Your task to perform on an android device: toggle show notifications on the lock screen Image 0: 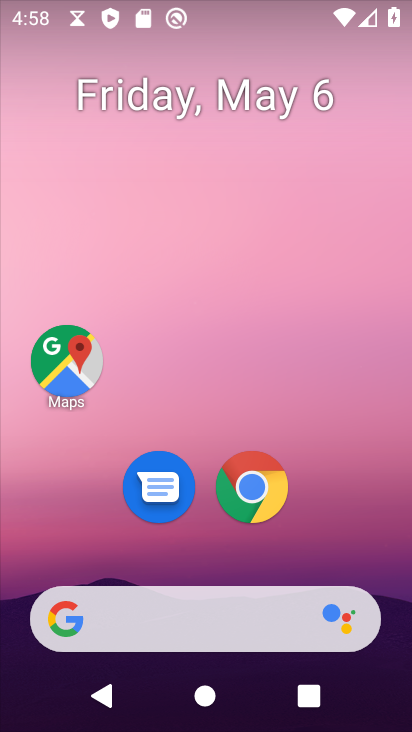
Step 0: drag from (187, 421) to (369, 7)
Your task to perform on an android device: toggle show notifications on the lock screen Image 1: 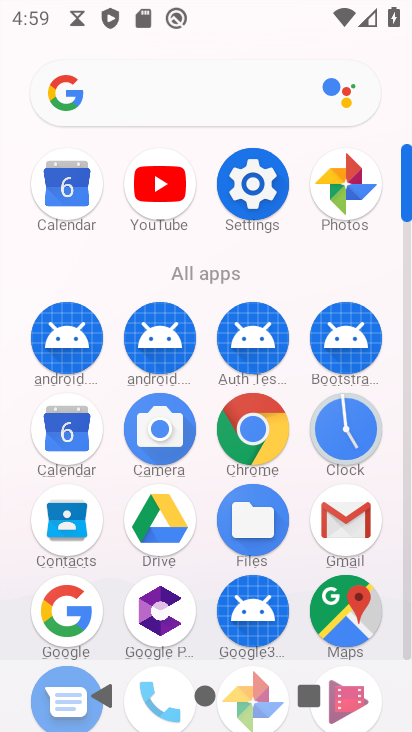
Step 1: click (252, 181)
Your task to perform on an android device: toggle show notifications on the lock screen Image 2: 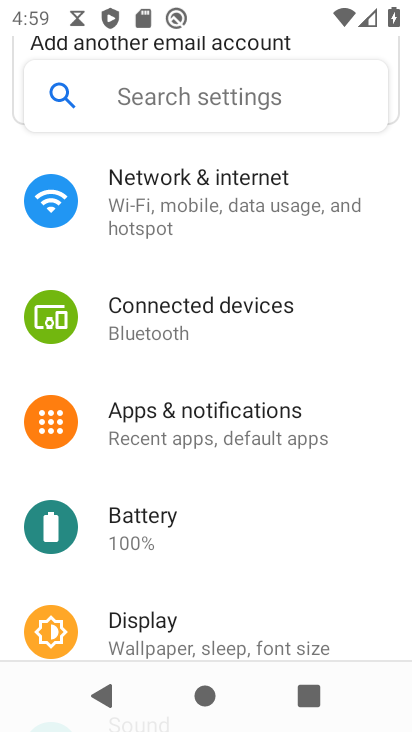
Step 2: click (227, 402)
Your task to perform on an android device: toggle show notifications on the lock screen Image 3: 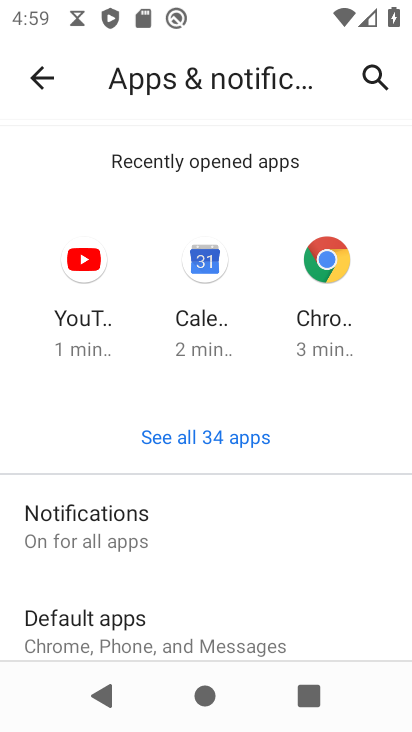
Step 3: click (101, 512)
Your task to perform on an android device: toggle show notifications on the lock screen Image 4: 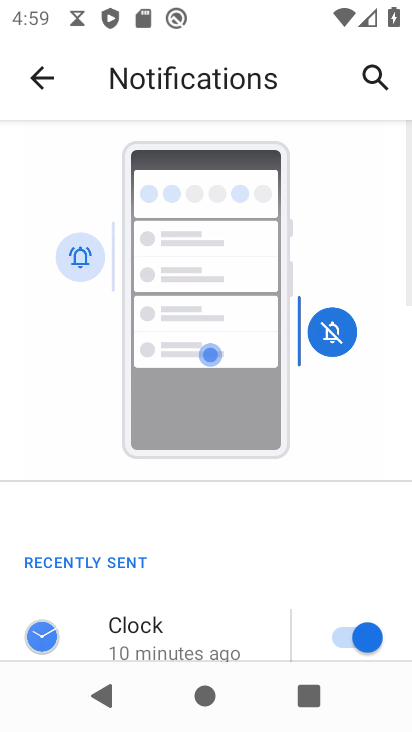
Step 4: drag from (203, 545) to (297, 257)
Your task to perform on an android device: toggle show notifications on the lock screen Image 5: 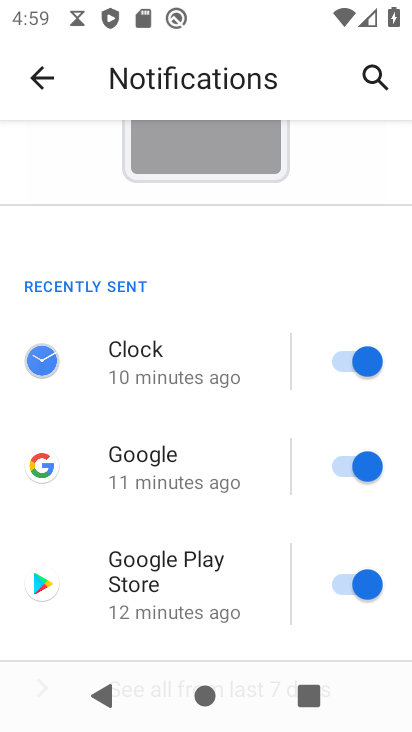
Step 5: drag from (152, 631) to (253, 390)
Your task to perform on an android device: toggle show notifications on the lock screen Image 6: 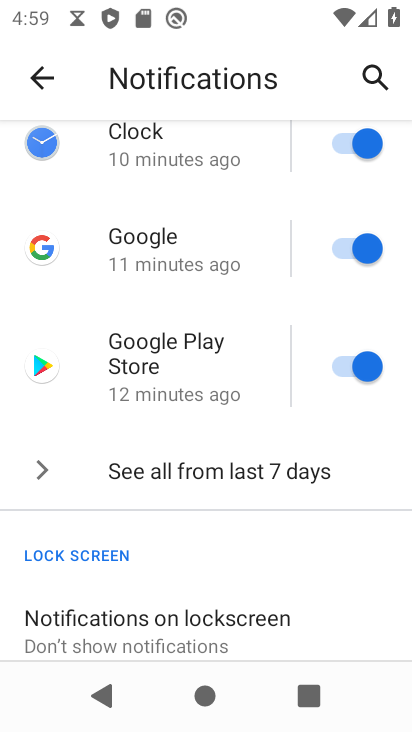
Step 6: drag from (153, 559) to (254, 412)
Your task to perform on an android device: toggle show notifications on the lock screen Image 7: 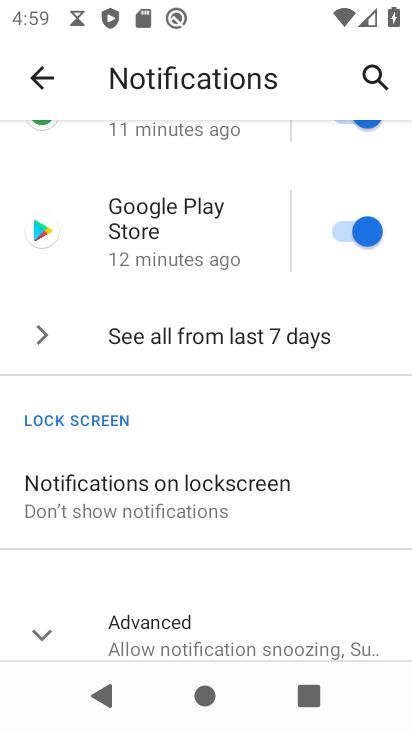
Step 7: click (187, 484)
Your task to perform on an android device: toggle show notifications on the lock screen Image 8: 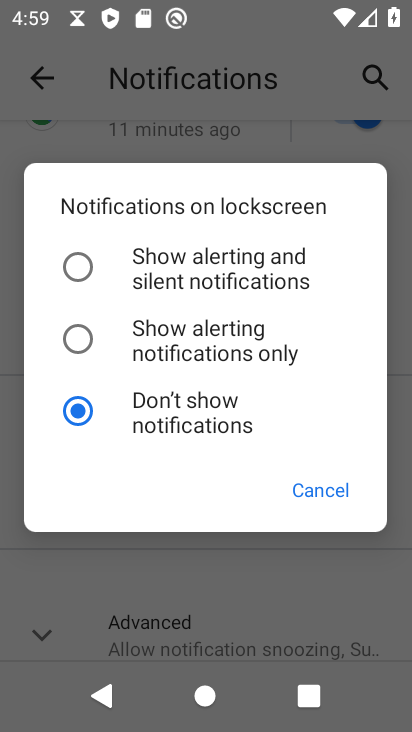
Step 8: click (82, 262)
Your task to perform on an android device: toggle show notifications on the lock screen Image 9: 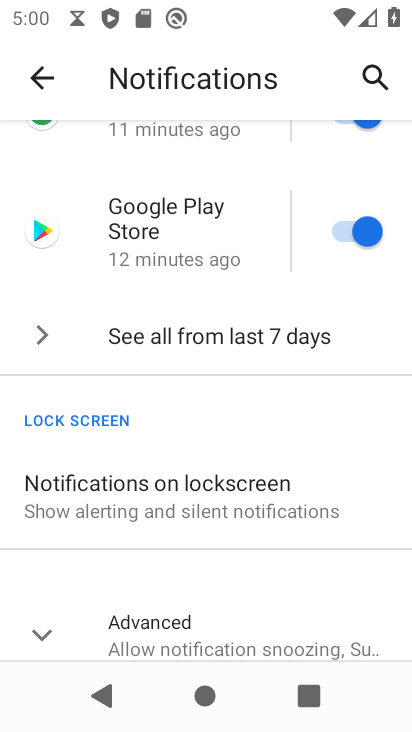
Step 9: task complete